Your task to perform on an android device: set an alarm Image 0: 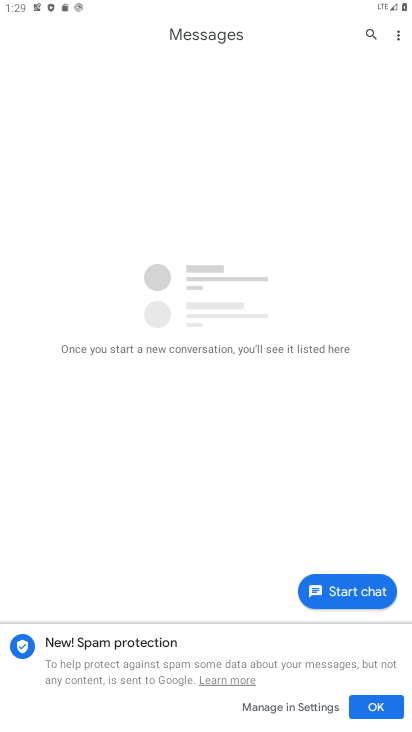
Step 0: press home button
Your task to perform on an android device: set an alarm Image 1: 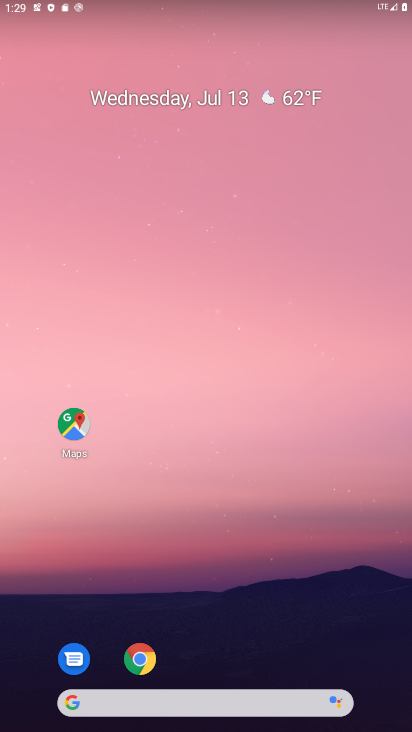
Step 1: drag from (226, 727) to (226, 165)
Your task to perform on an android device: set an alarm Image 2: 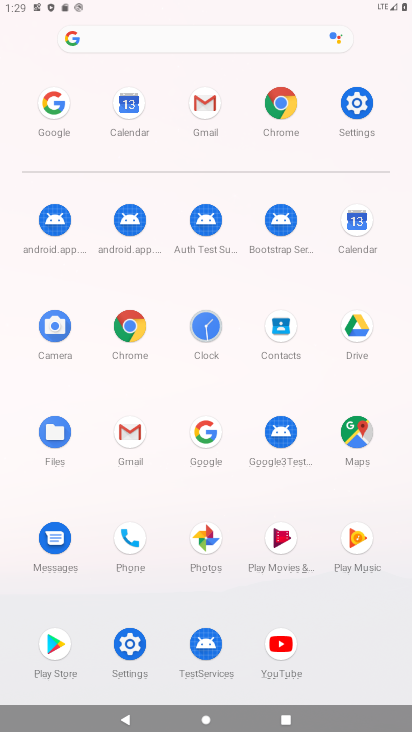
Step 2: click (201, 325)
Your task to perform on an android device: set an alarm Image 3: 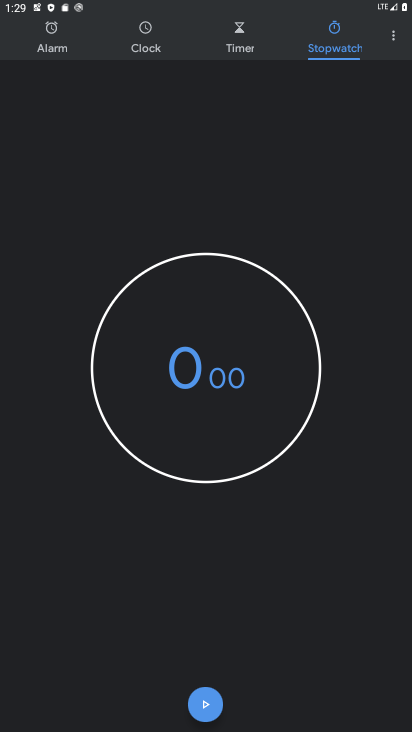
Step 3: click (48, 44)
Your task to perform on an android device: set an alarm Image 4: 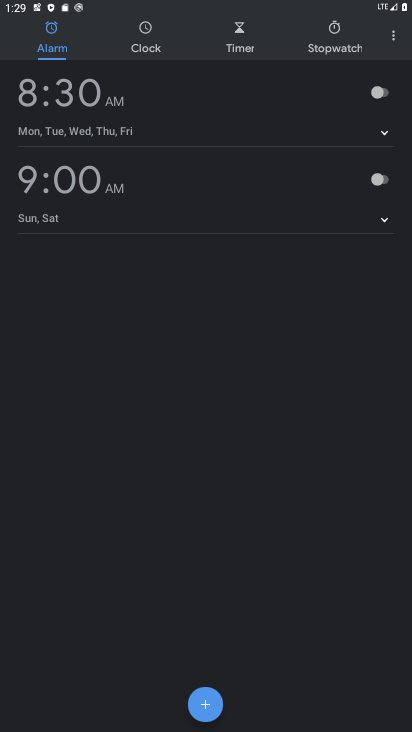
Step 4: click (200, 703)
Your task to perform on an android device: set an alarm Image 5: 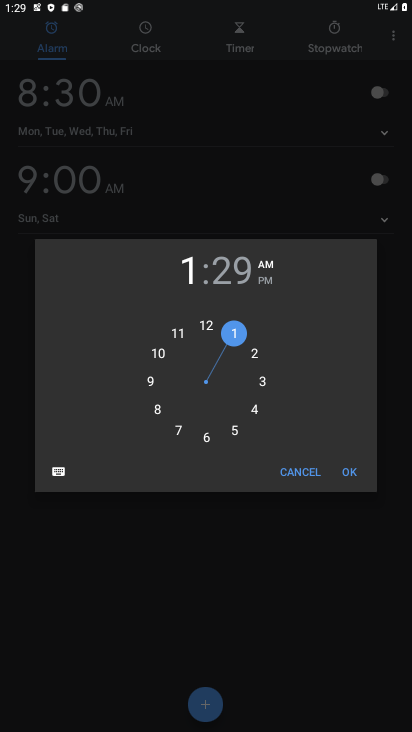
Step 5: click (202, 437)
Your task to perform on an android device: set an alarm Image 6: 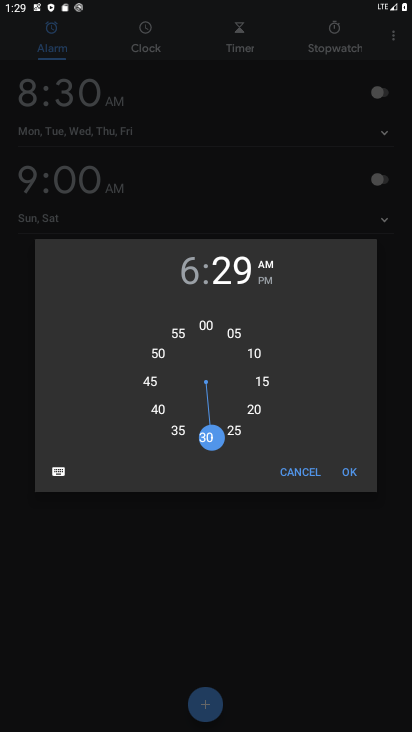
Step 6: click (348, 474)
Your task to perform on an android device: set an alarm Image 7: 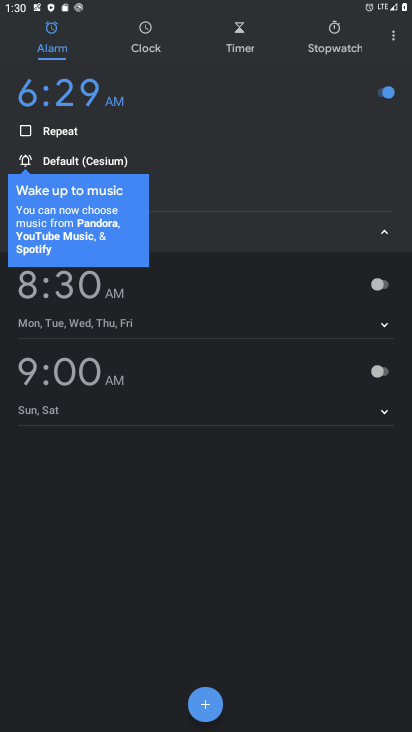
Step 7: task complete